Your task to perform on an android device: turn pop-ups off in chrome Image 0: 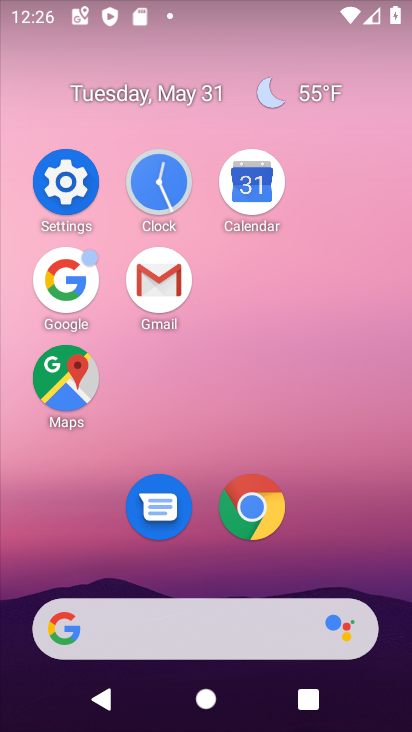
Step 0: click (241, 514)
Your task to perform on an android device: turn pop-ups off in chrome Image 1: 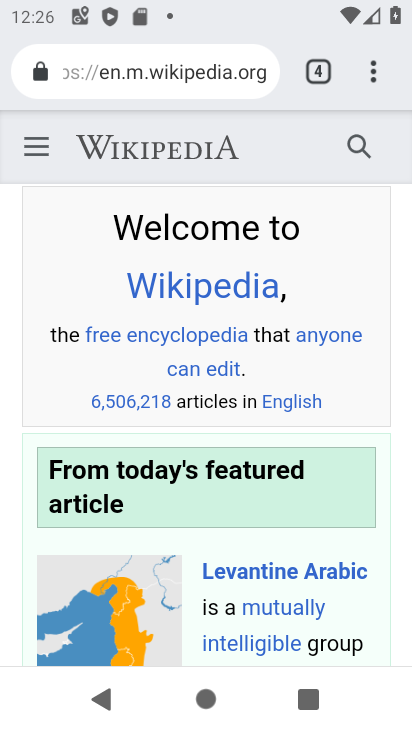
Step 1: click (376, 76)
Your task to perform on an android device: turn pop-ups off in chrome Image 2: 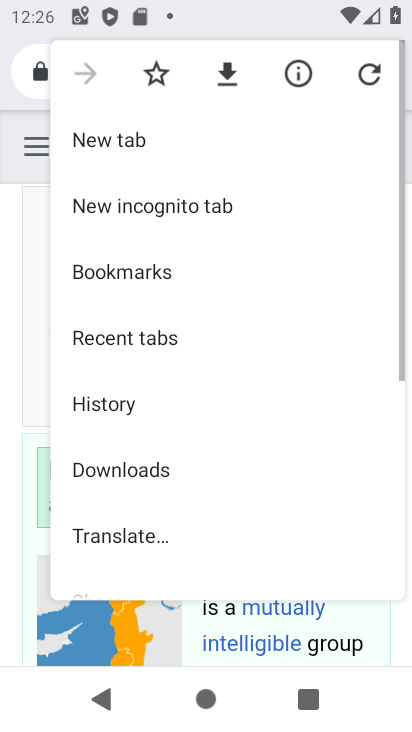
Step 2: drag from (237, 487) to (239, 180)
Your task to perform on an android device: turn pop-ups off in chrome Image 3: 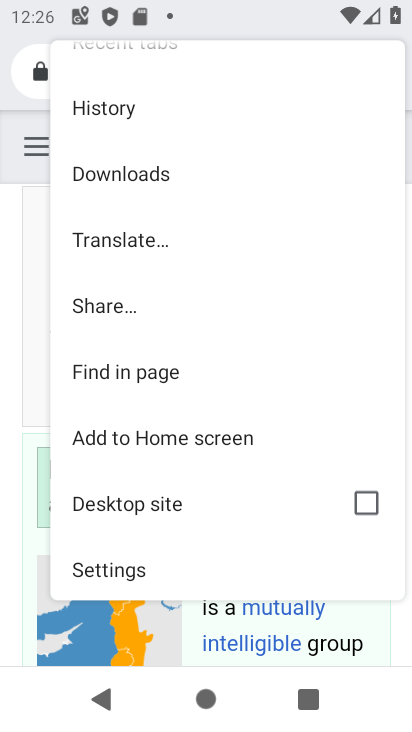
Step 3: click (110, 570)
Your task to perform on an android device: turn pop-ups off in chrome Image 4: 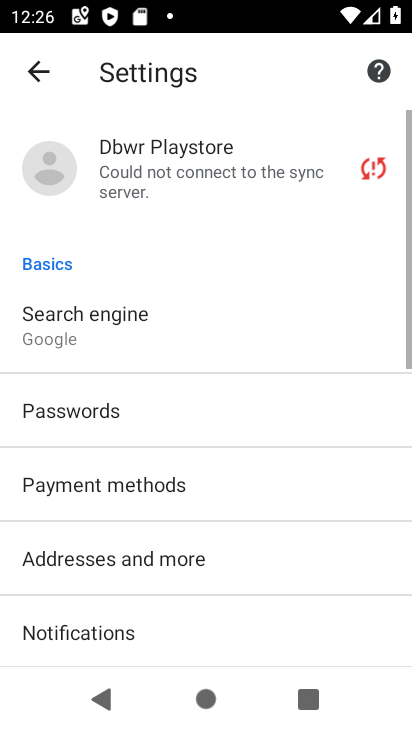
Step 4: drag from (111, 570) to (141, 175)
Your task to perform on an android device: turn pop-ups off in chrome Image 5: 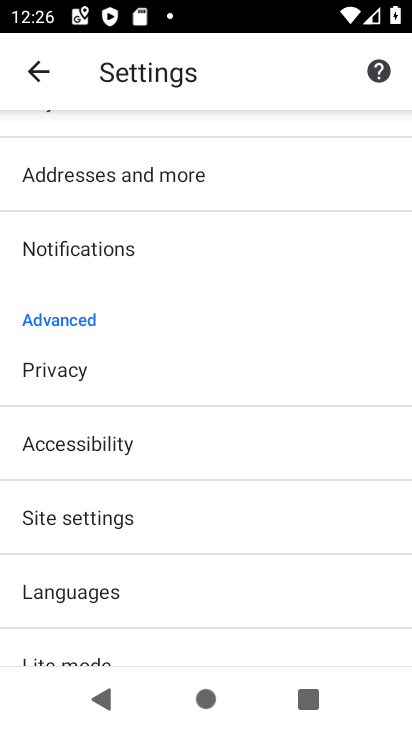
Step 5: click (135, 537)
Your task to perform on an android device: turn pop-ups off in chrome Image 6: 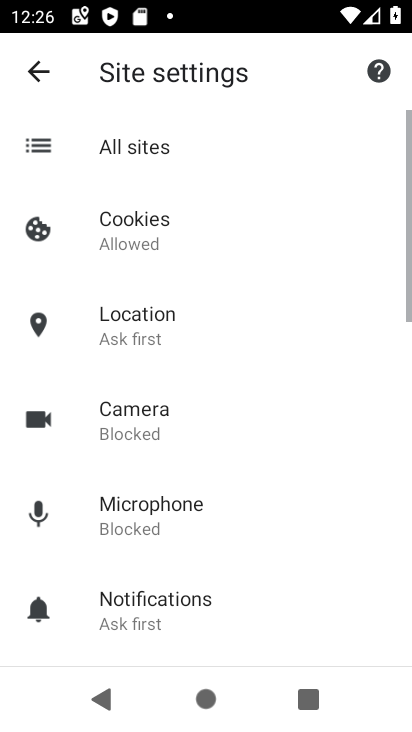
Step 6: drag from (134, 530) to (137, 162)
Your task to perform on an android device: turn pop-ups off in chrome Image 7: 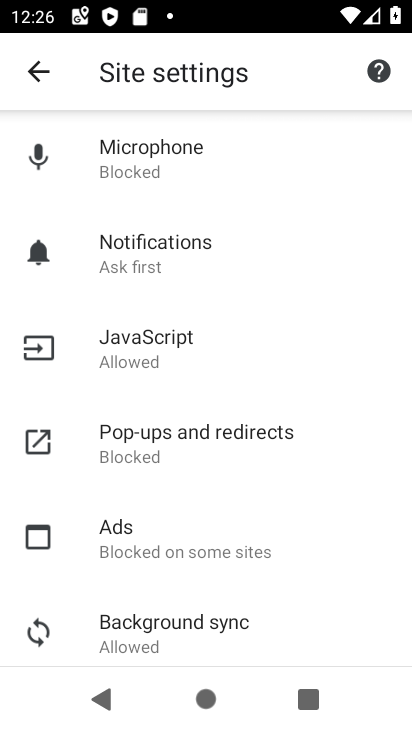
Step 7: click (193, 437)
Your task to perform on an android device: turn pop-ups off in chrome Image 8: 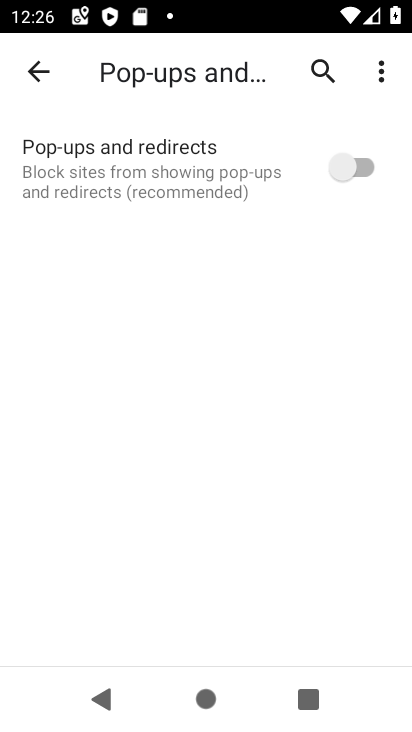
Step 8: task complete